Your task to perform on an android device: Open eBay Image 0: 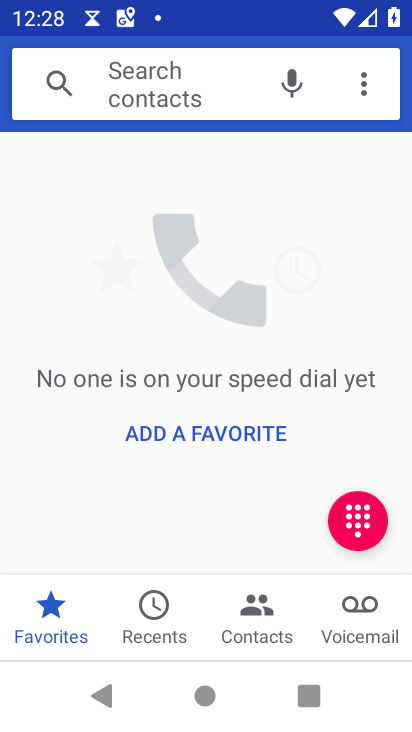
Step 0: press home button
Your task to perform on an android device: Open eBay Image 1: 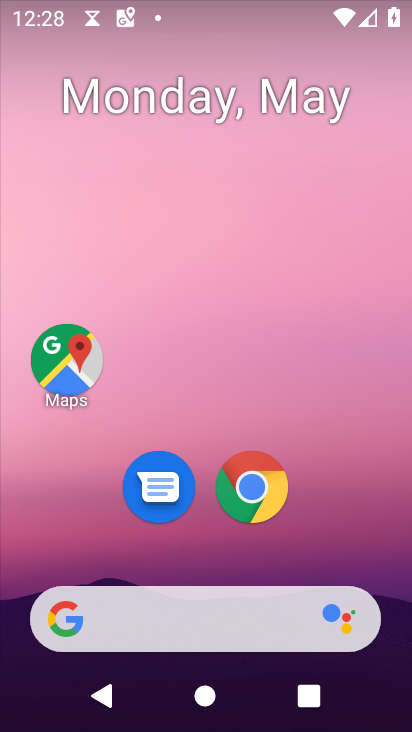
Step 1: click (246, 496)
Your task to perform on an android device: Open eBay Image 2: 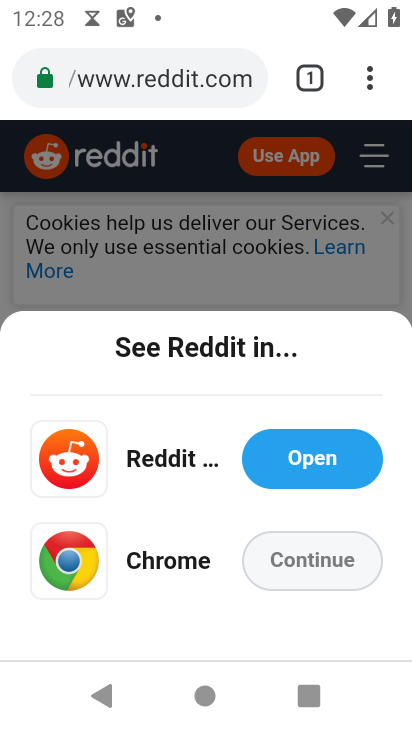
Step 2: click (180, 76)
Your task to perform on an android device: Open eBay Image 3: 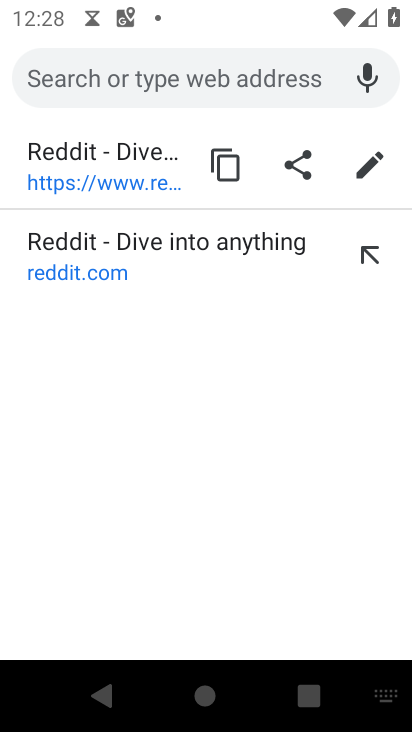
Step 3: type "ebay"
Your task to perform on an android device: Open eBay Image 4: 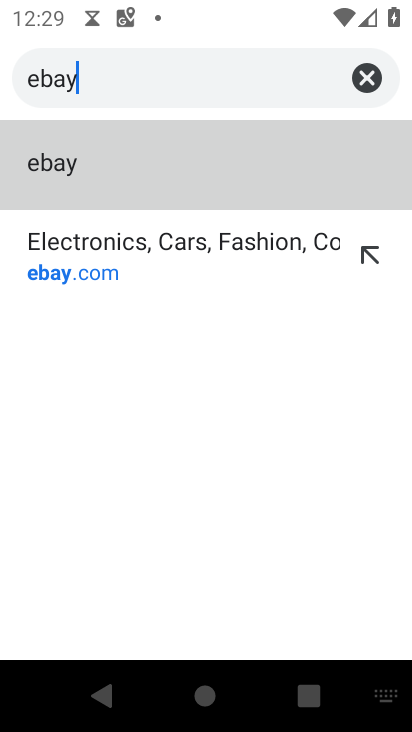
Step 4: click (59, 164)
Your task to perform on an android device: Open eBay Image 5: 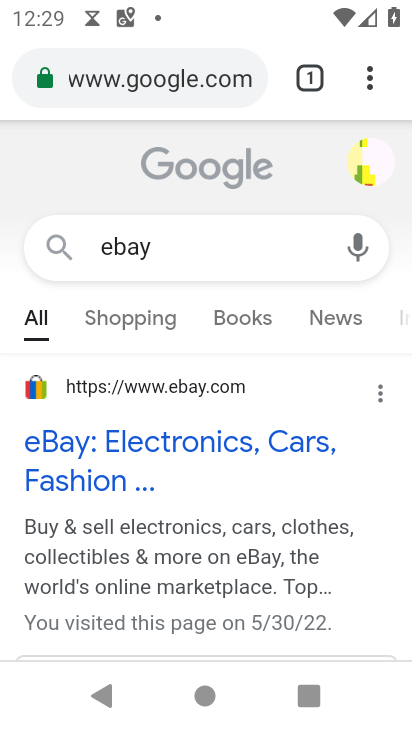
Step 5: click (151, 436)
Your task to perform on an android device: Open eBay Image 6: 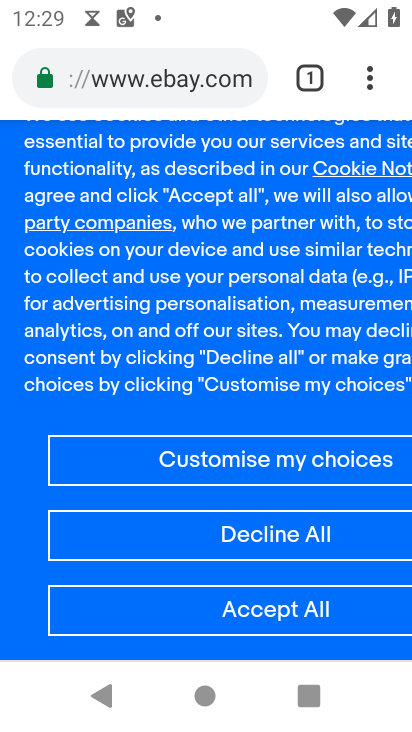
Step 6: task complete